Your task to perform on an android device: Empty the shopping cart on bestbuy. Image 0: 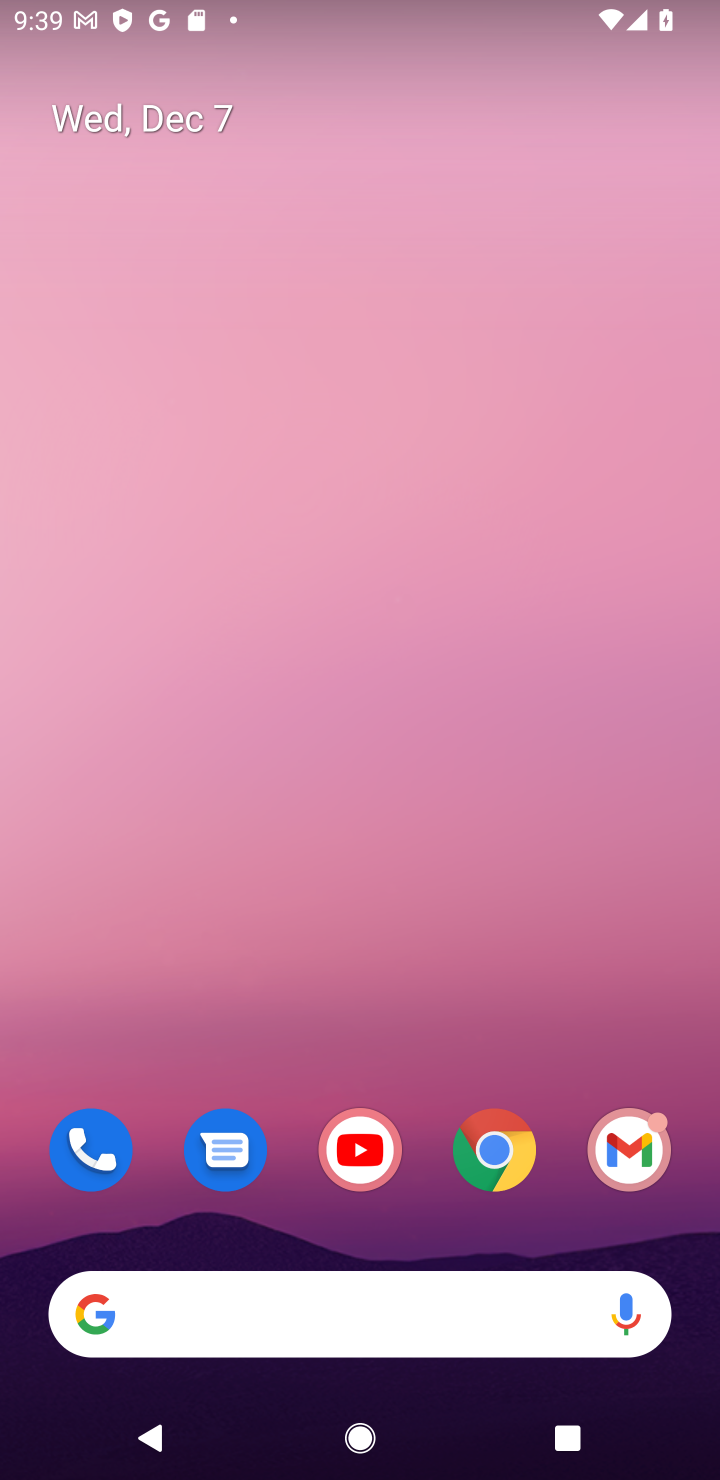
Step 0: click (475, 1146)
Your task to perform on an android device: Empty the shopping cart on bestbuy. Image 1: 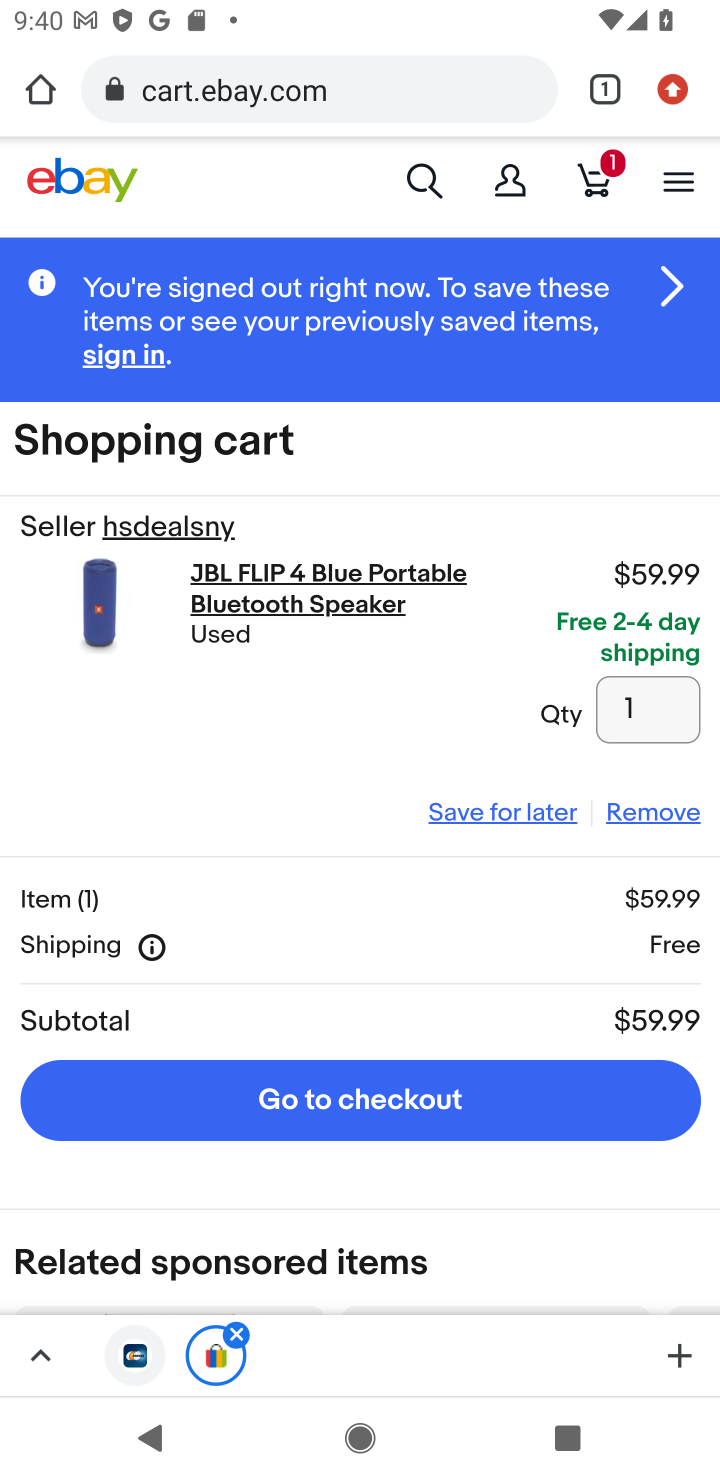
Step 1: click (398, 90)
Your task to perform on an android device: Empty the shopping cart on bestbuy. Image 2: 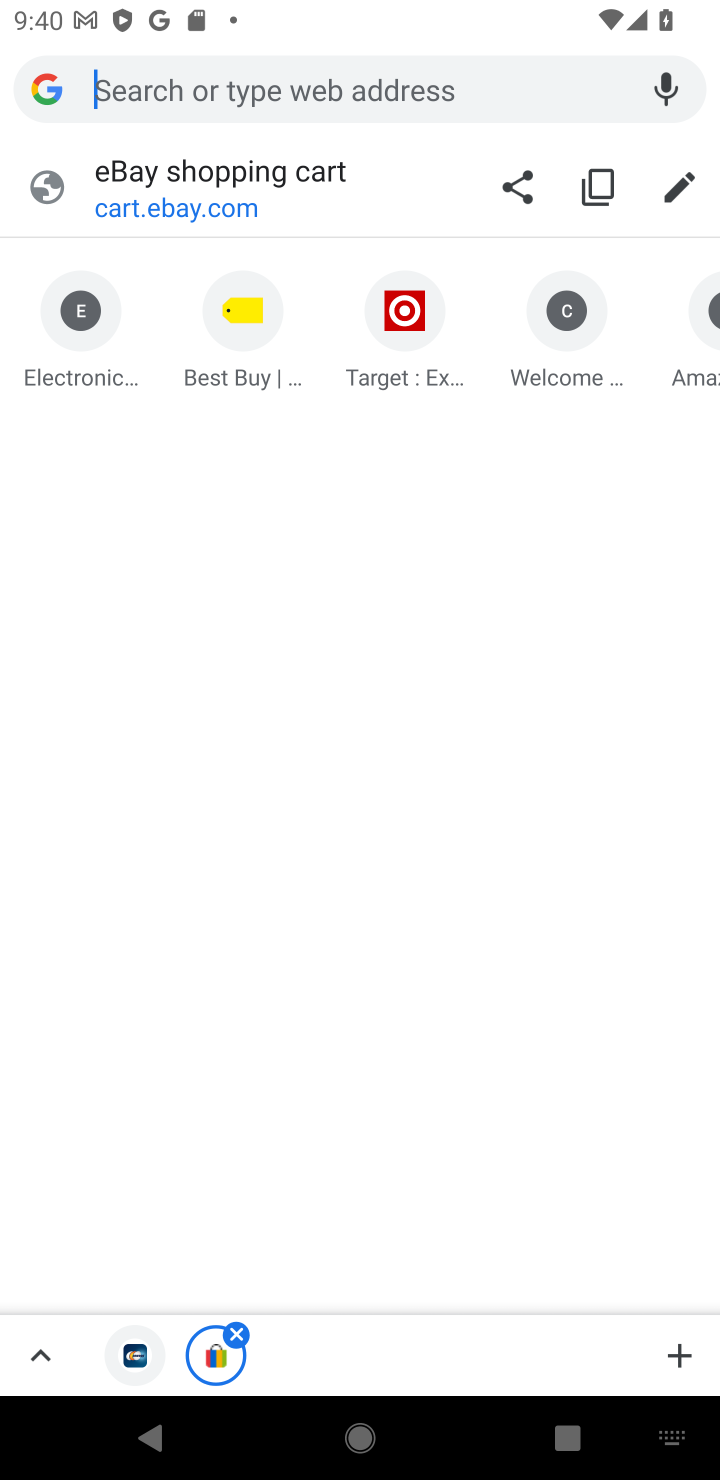
Step 2: click (234, 304)
Your task to perform on an android device: Empty the shopping cart on bestbuy. Image 3: 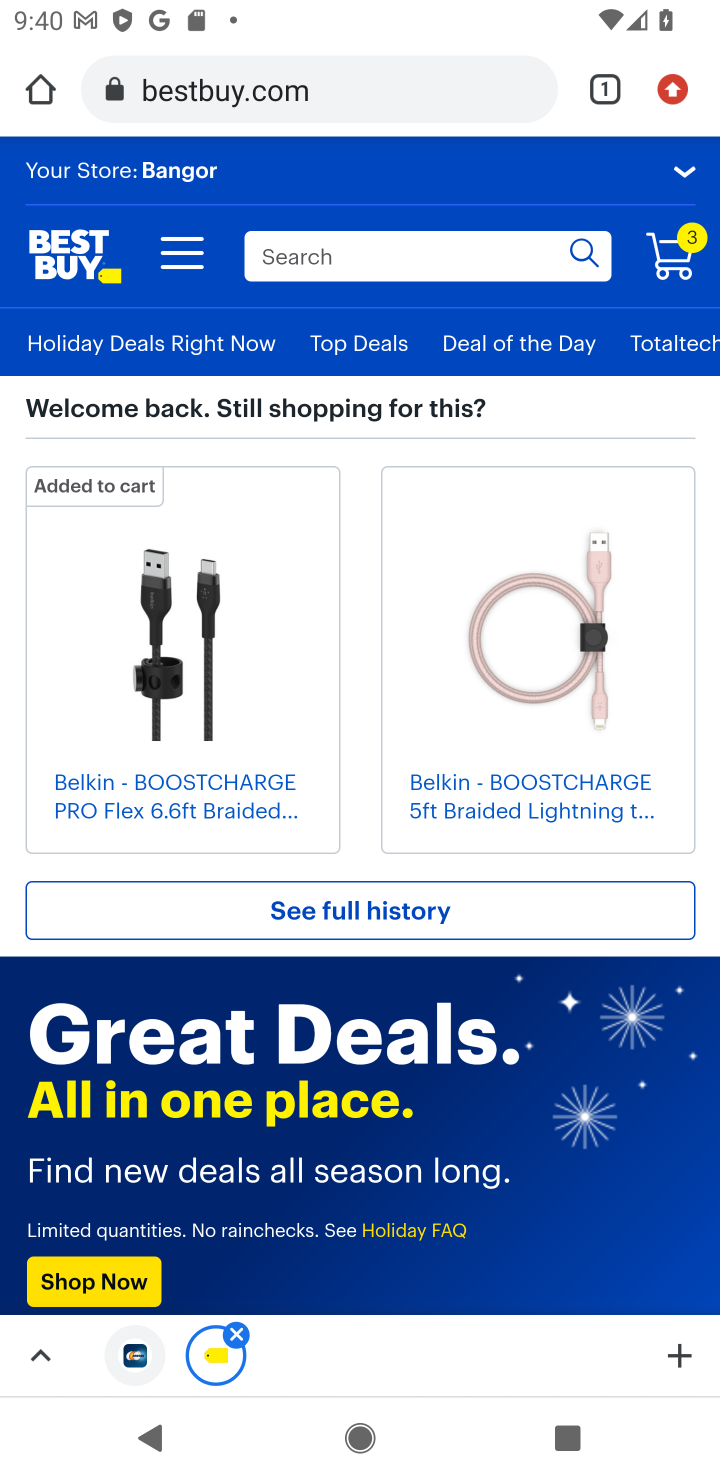
Step 3: click (669, 265)
Your task to perform on an android device: Empty the shopping cart on bestbuy. Image 4: 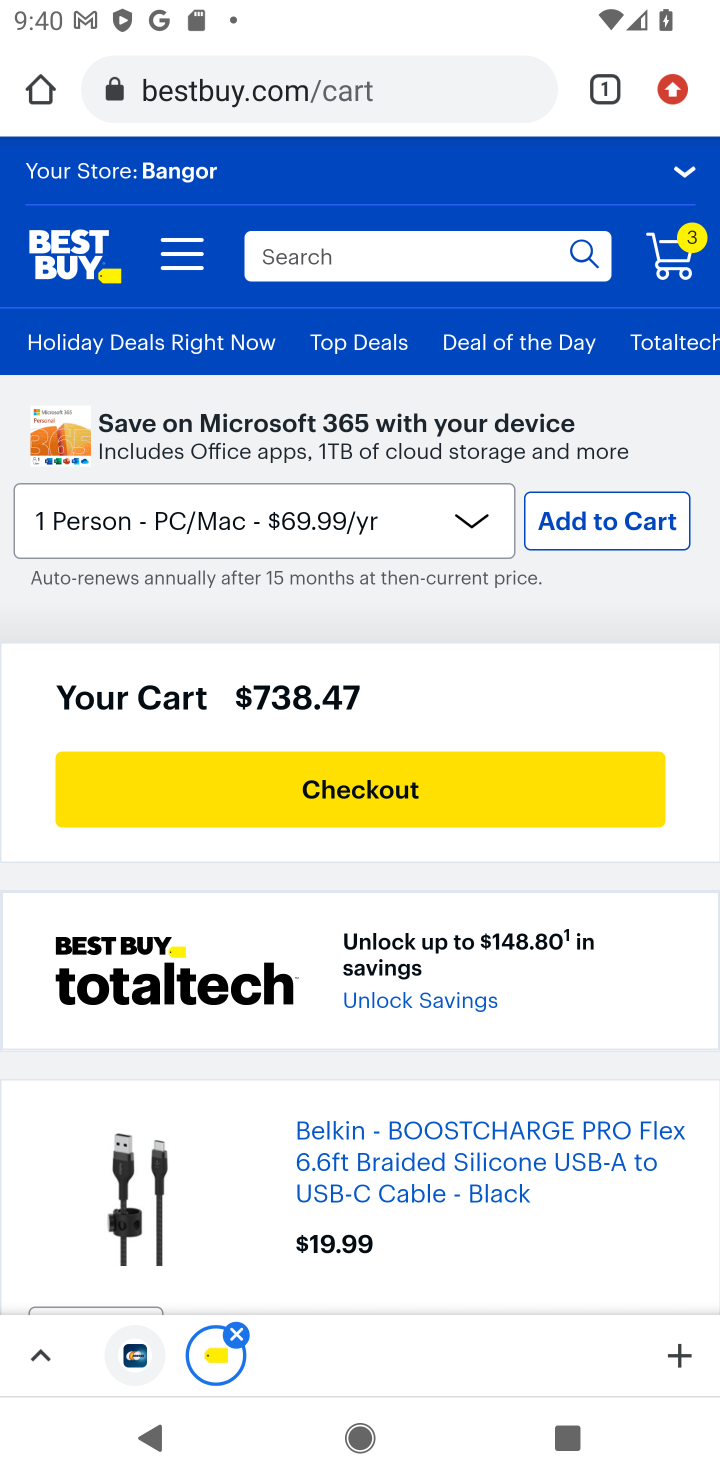
Step 4: drag from (534, 1055) to (577, 321)
Your task to perform on an android device: Empty the shopping cart on bestbuy. Image 5: 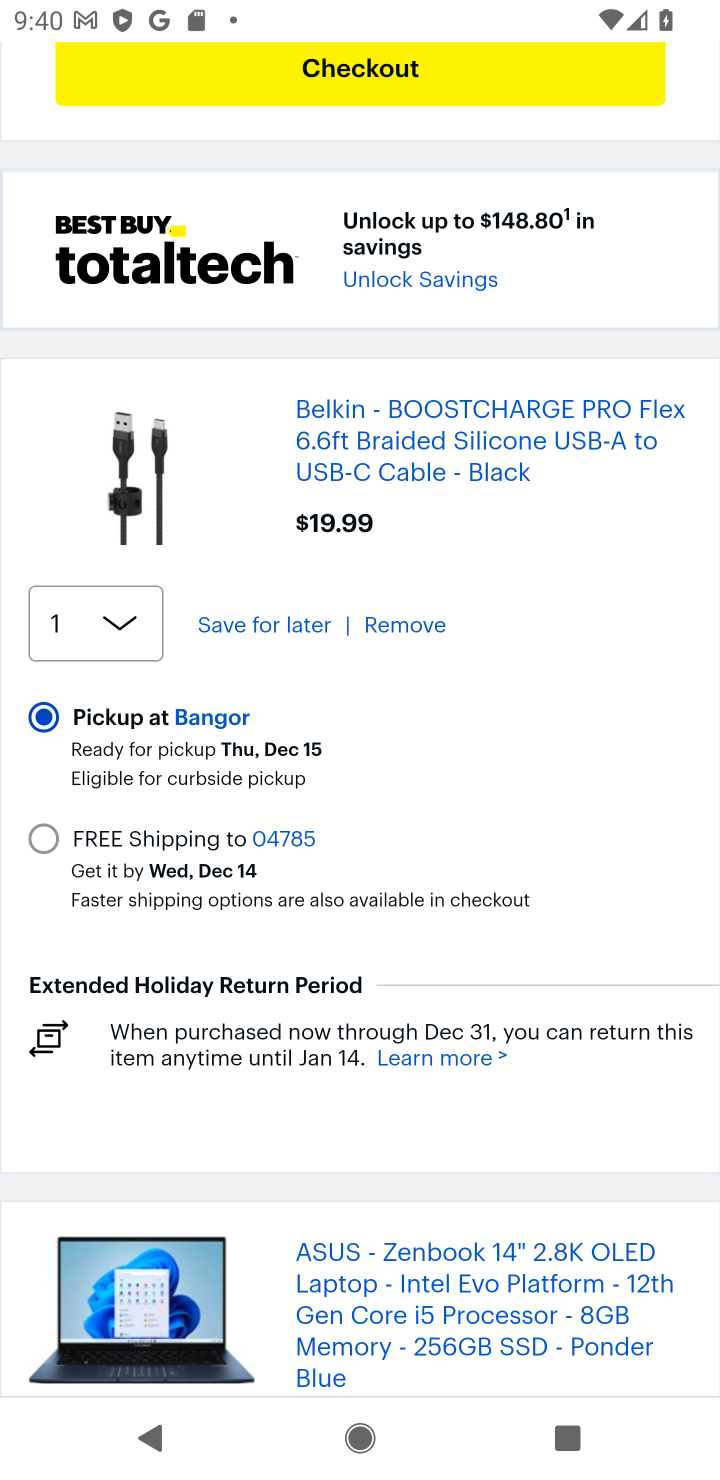
Step 5: click (411, 624)
Your task to perform on an android device: Empty the shopping cart on bestbuy. Image 6: 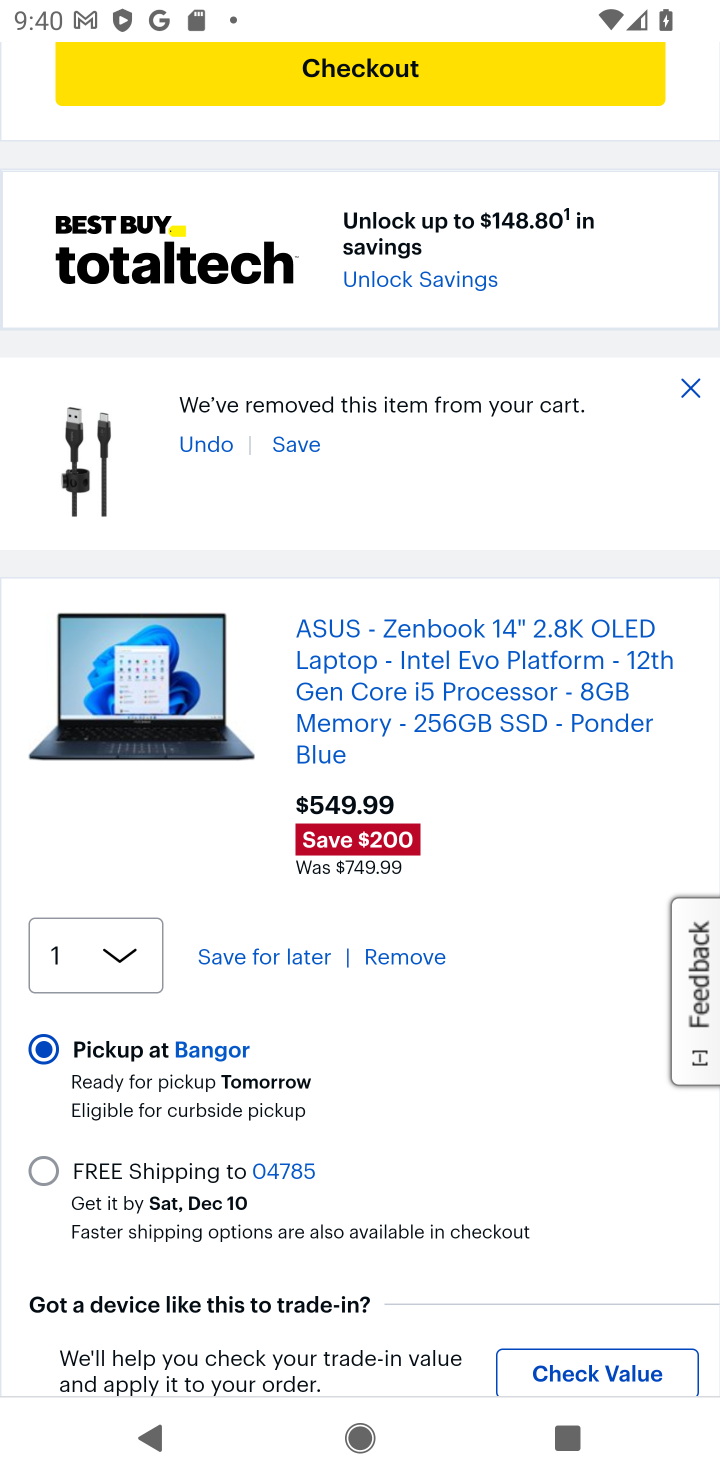
Step 6: click (399, 952)
Your task to perform on an android device: Empty the shopping cart on bestbuy. Image 7: 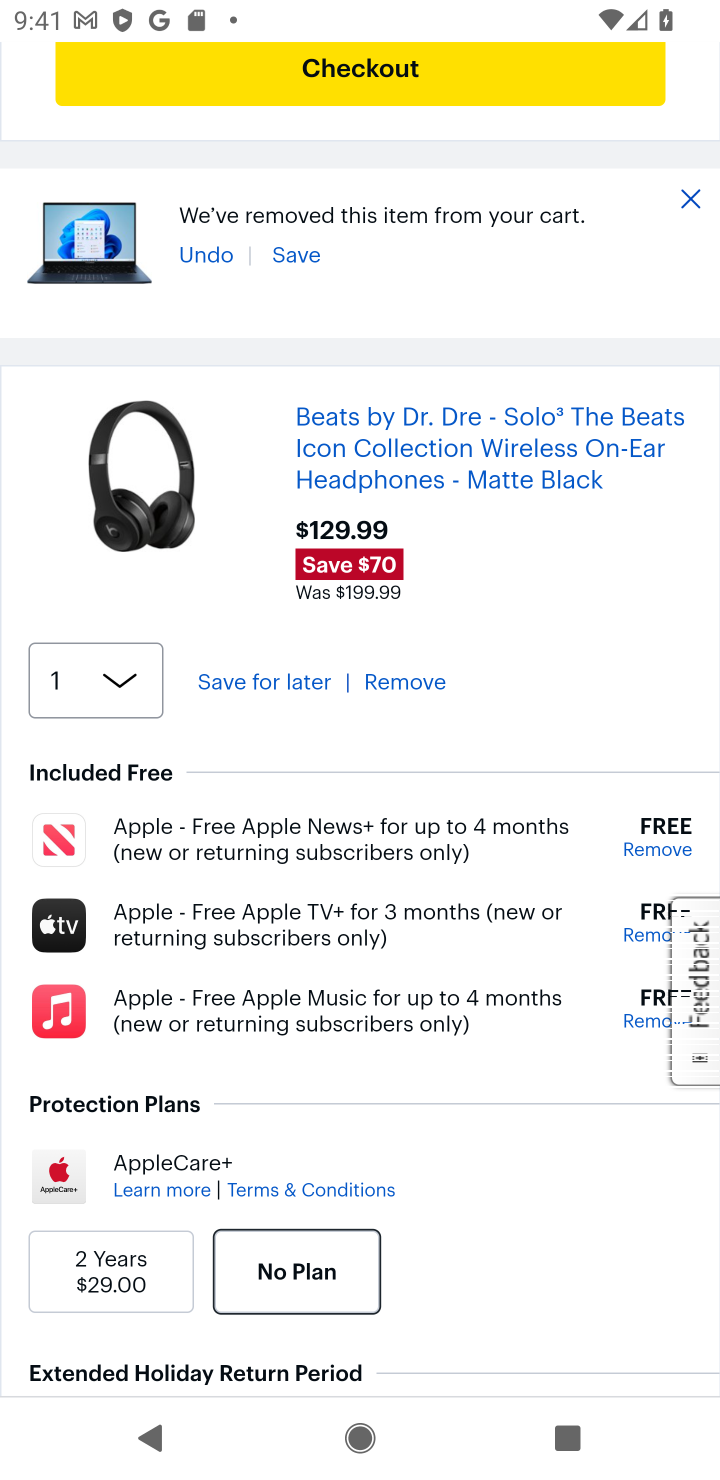
Step 7: click (406, 670)
Your task to perform on an android device: Empty the shopping cart on bestbuy. Image 8: 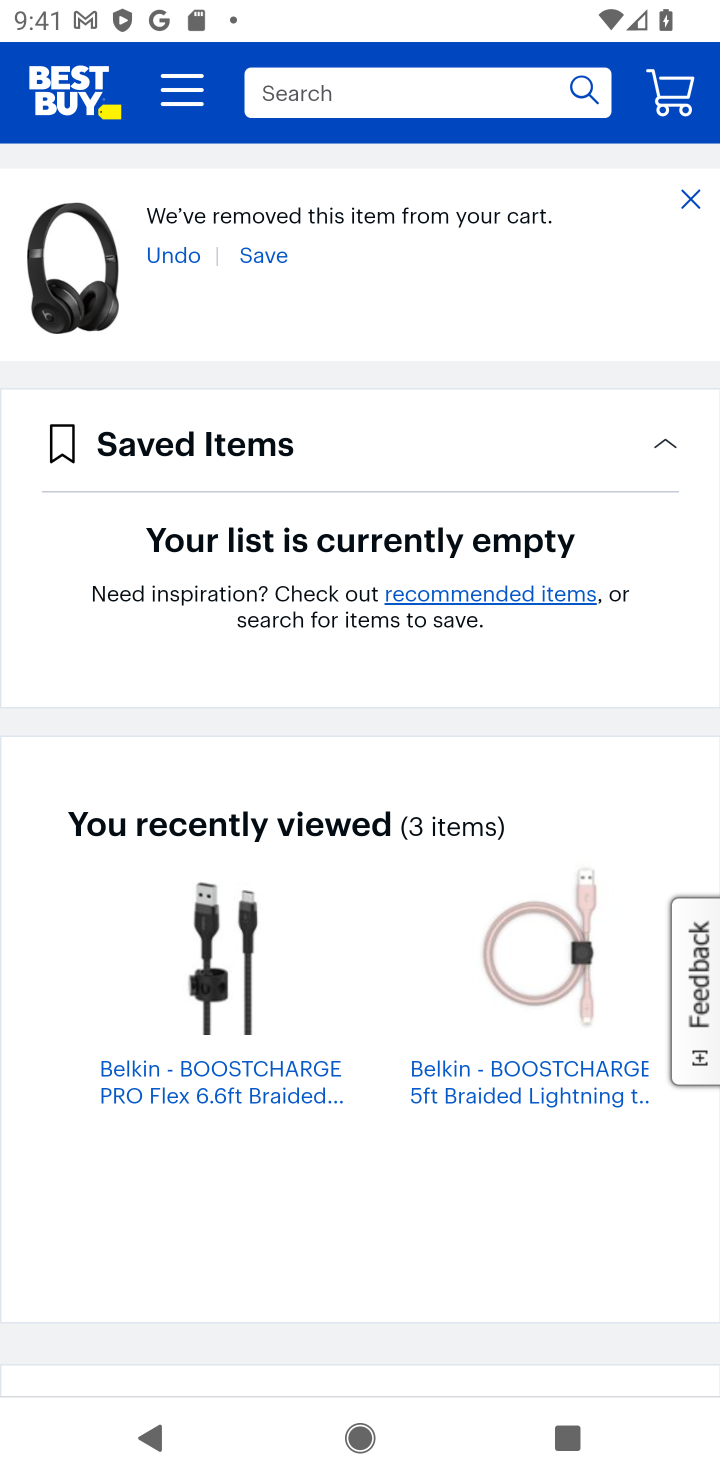
Step 8: click (694, 196)
Your task to perform on an android device: Empty the shopping cart on bestbuy. Image 9: 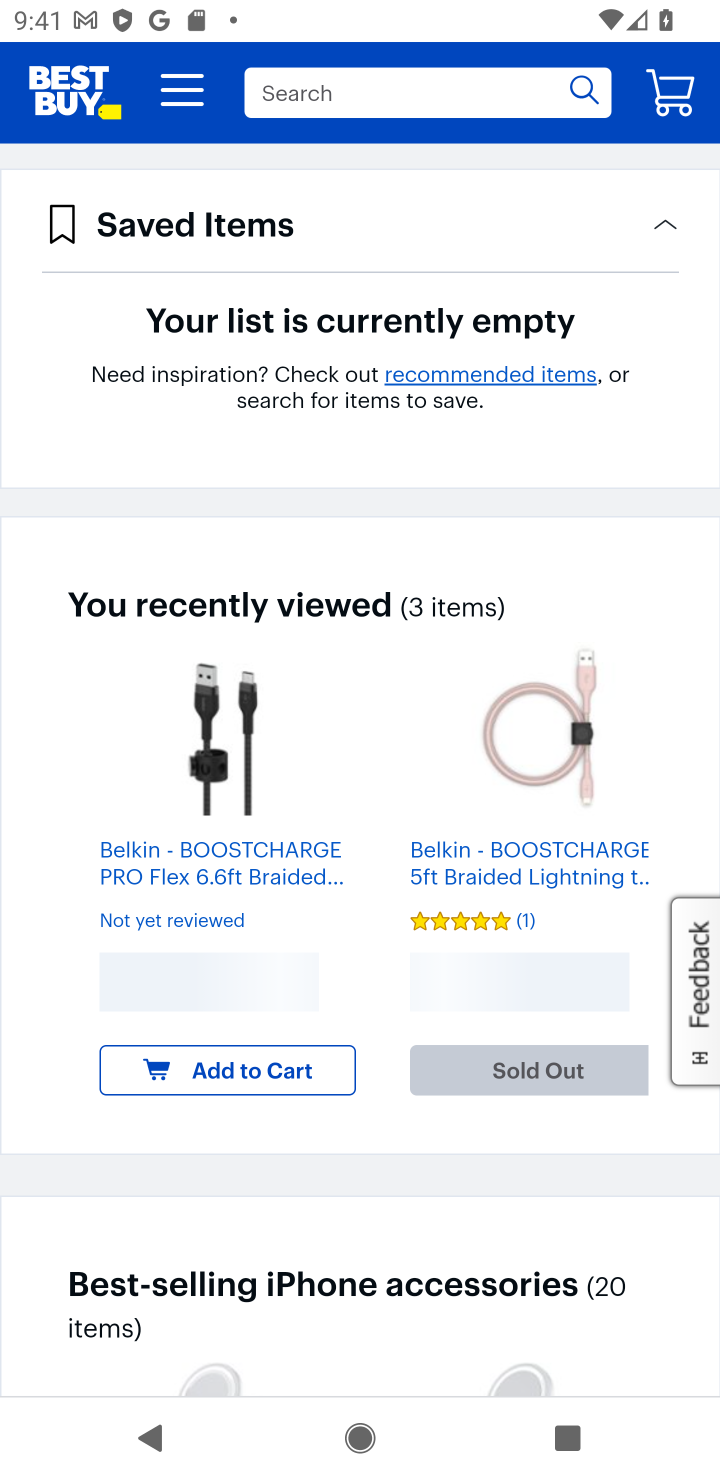
Step 9: task complete